Your task to perform on an android device: turn on sleep mode Image 0: 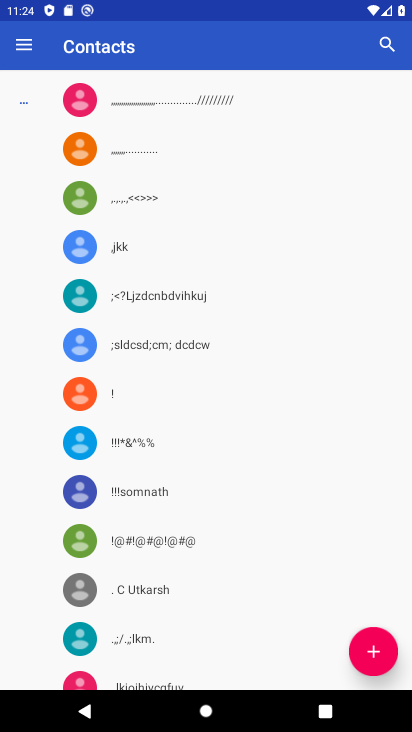
Step 0: press home button
Your task to perform on an android device: turn on sleep mode Image 1: 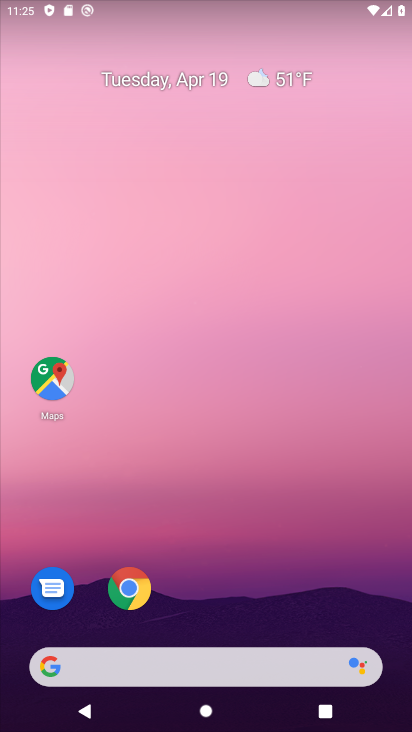
Step 1: drag from (224, 614) to (213, 65)
Your task to perform on an android device: turn on sleep mode Image 2: 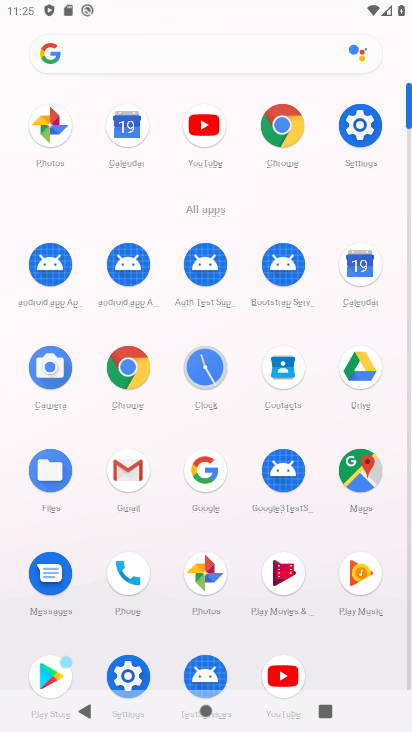
Step 2: click (358, 116)
Your task to perform on an android device: turn on sleep mode Image 3: 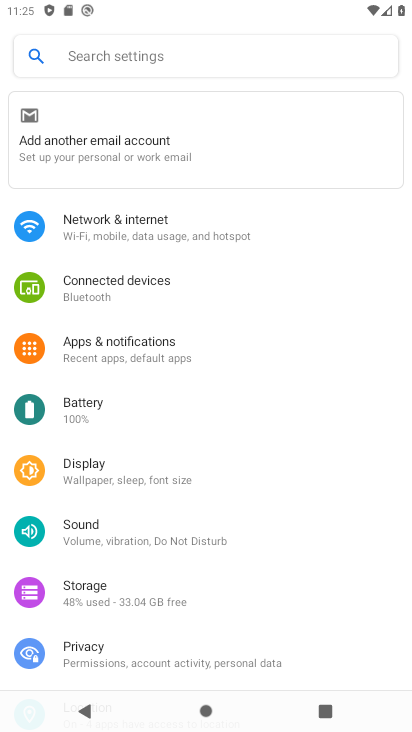
Step 3: click (124, 459)
Your task to perform on an android device: turn on sleep mode Image 4: 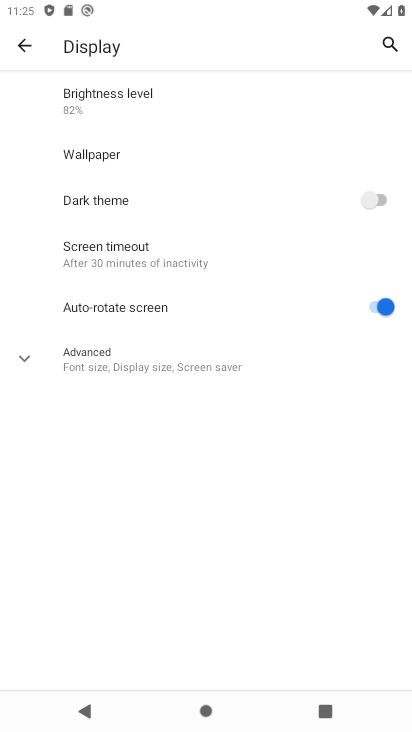
Step 4: click (36, 355)
Your task to perform on an android device: turn on sleep mode Image 5: 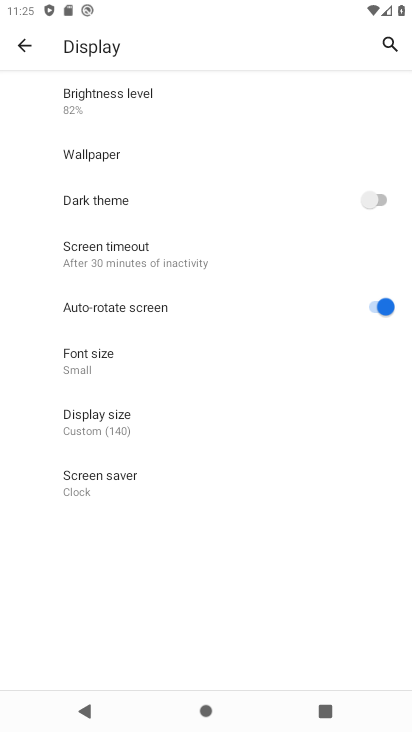
Step 5: task complete